Your task to perform on an android device: Add "dell xps" to the cart on costco.com Image 0: 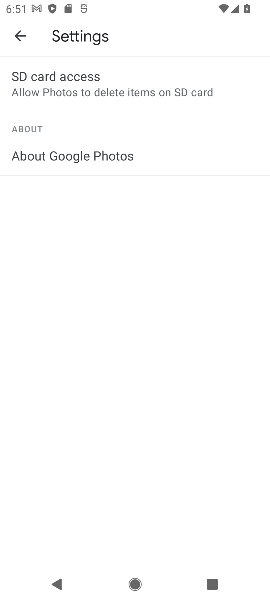
Step 0: press home button
Your task to perform on an android device: Add "dell xps" to the cart on costco.com Image 1: 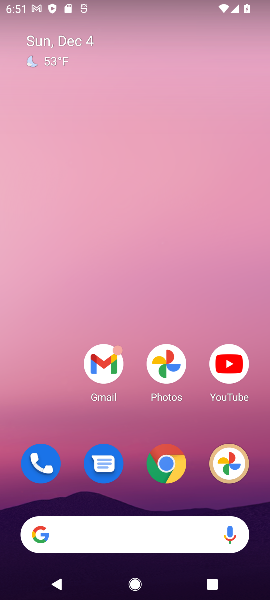
Step 1: click (178, 528)
Your task to perform on an android device: Add "dell xps" to the cart on costco.com Image 2: 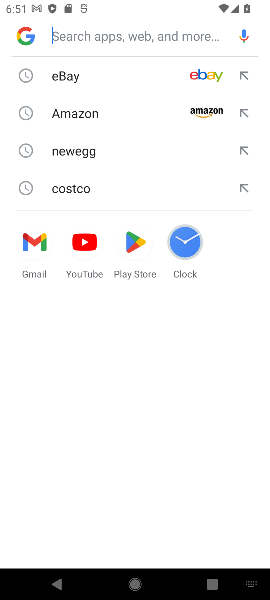
Step 2: type "costco.com"
Your task to perform on an android device: Add "dell xps" to the cart on costco.com Image 3: 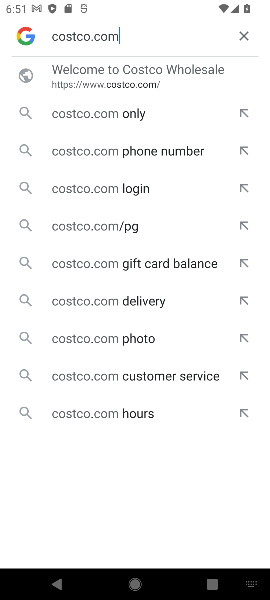
Step 3: click (106, 74)
Your task to perform on an android device: Add "dell xps" to the cart on costco.com Image 4: 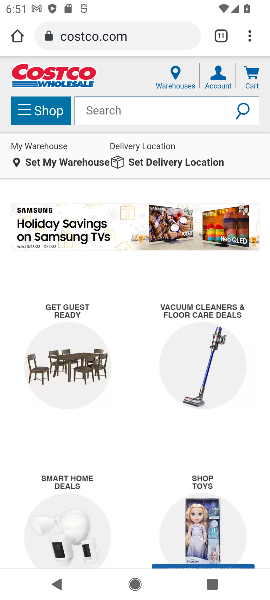
Step 4: click (116, 106)
Your task to perform on an android device: Add "dell xps" to the cart on costco.com Image 5: 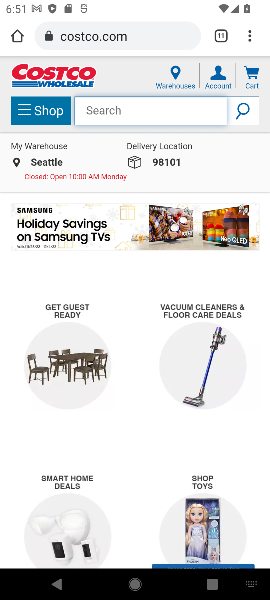
Step 5: type "dell xps"
Your task to perform on an android device: Add "dell xps" to the cart on costco.com Image 6: 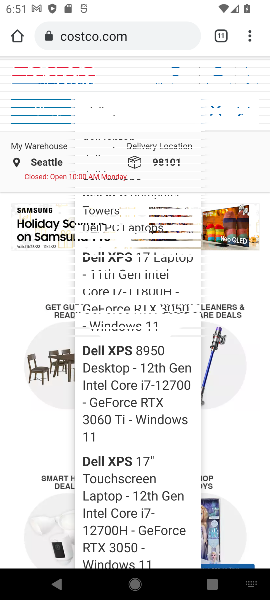
Step 6: click (231, 112)
Your task to perform on an android device: Add "dell xps" to the cart on costco.com Image 7: 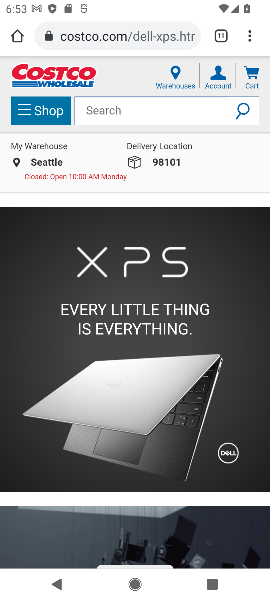
Step 7: task complete